Your task to perform on an android device: see sites visited before in the chrome app Image 0: 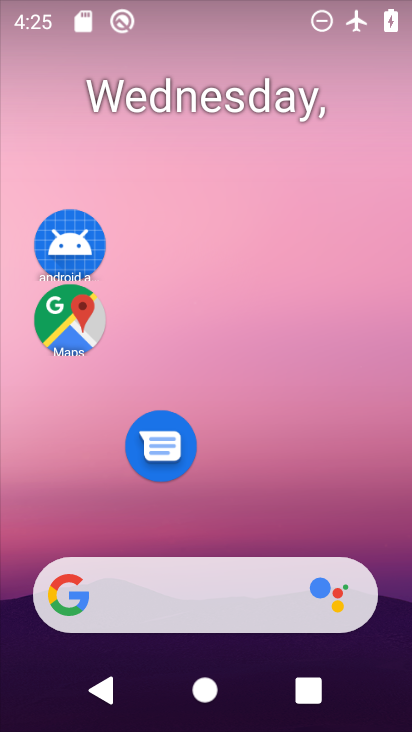
Step 0: drag from (325, 497) to (288, 145)
Your task to perform on an android device: see sites visited before in the chrome app Image 1: 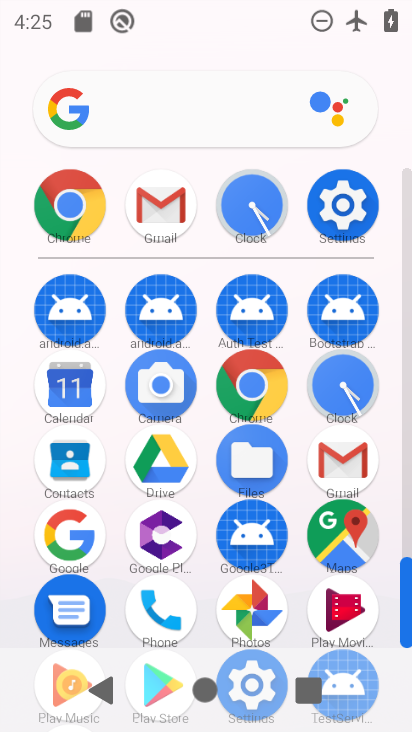
Step 1: click (316, 212)
Your task to perform on an android device: see sites visited before in the chrome app Image 2: 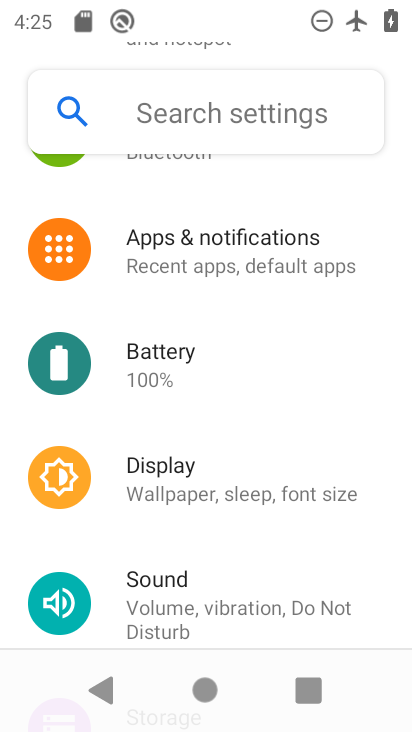
Step 2: press home button
Your task to perform on an android device: see sites visited before in the chrome app Image 3: 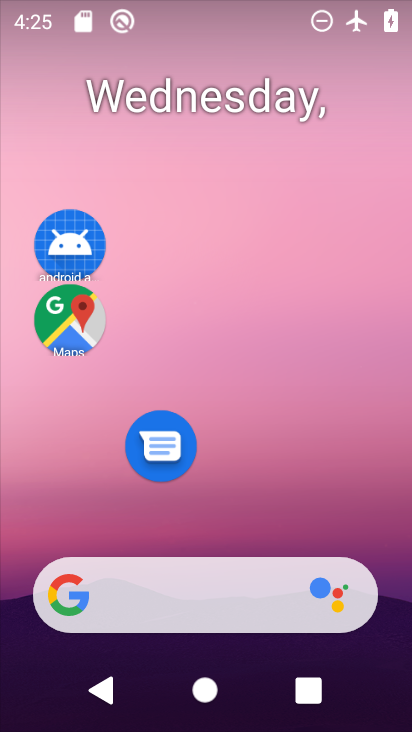
Step 3: drag from (242, 452) to (235, 151)
Your task to perform on an android device: see sites visited before in the chrome app Image 4: 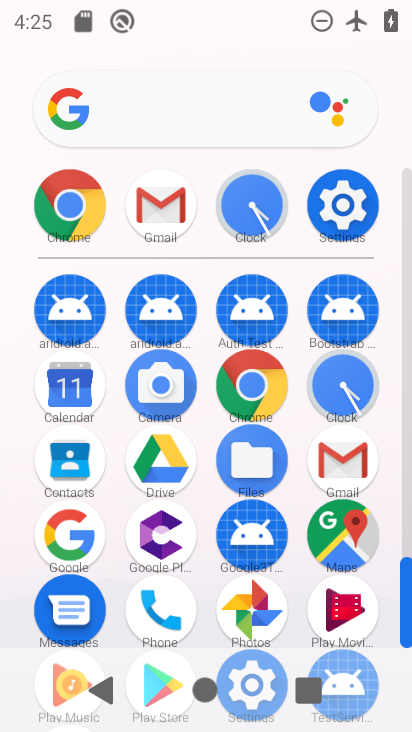
Step 4: click (246, 365)
Your task to perform on an android device: see sites visited before in the chrome app Image 5: 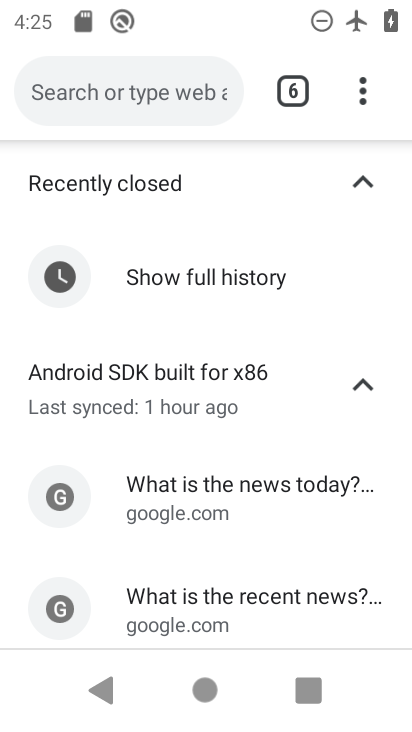
Step 5: task complete